Your task to perform on an android device: When is my next appointment? Image 0: 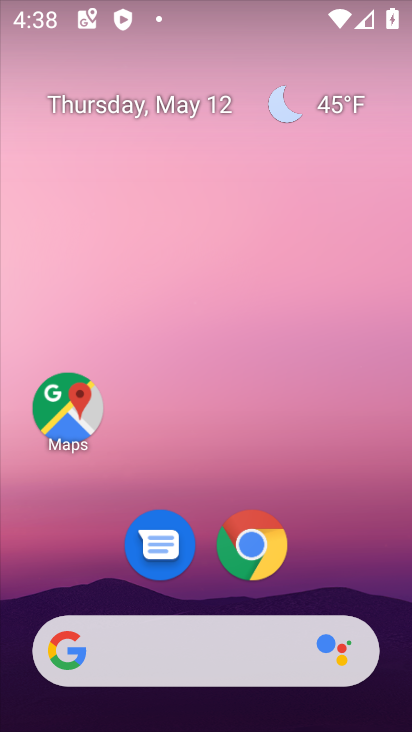
Step 0: drag from (333, 489) to (337, 38)
Your task to perform on an android device: When is my next appointment? Image 1: 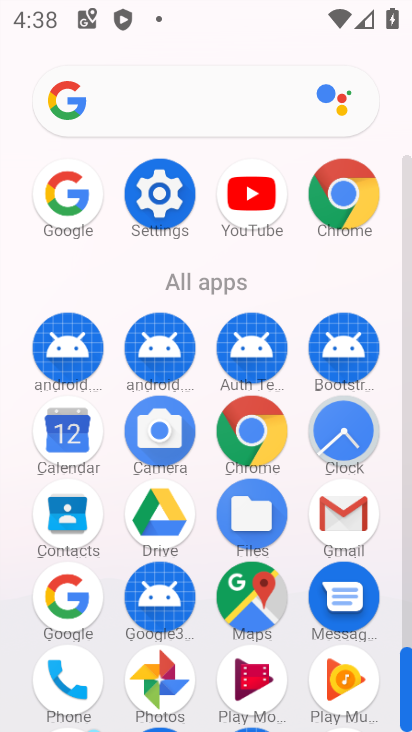
Step 1: click (59, 435)
Your task to perform on an android device: When is my next appointment? Image 2: 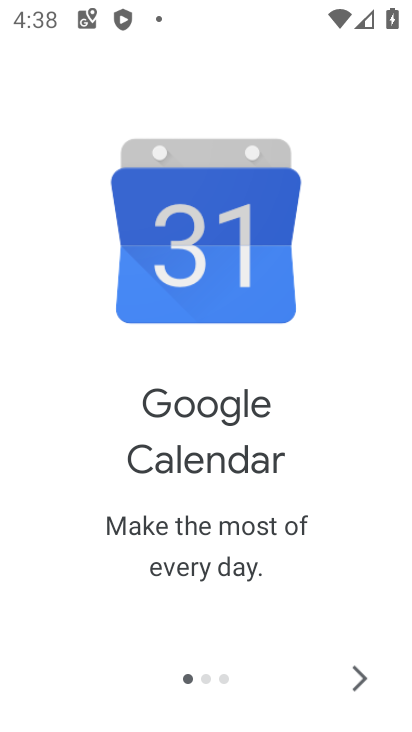
Step 2: click (359, 668)
Your task to perform on an android device: When is my next appointment? Image 3: 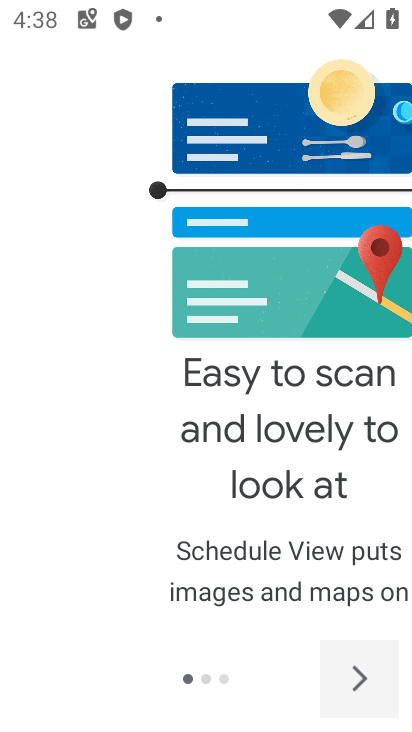
Step 3: click (358, 667)
Your task to perform on an android device: When is my next appointment? Image 4: 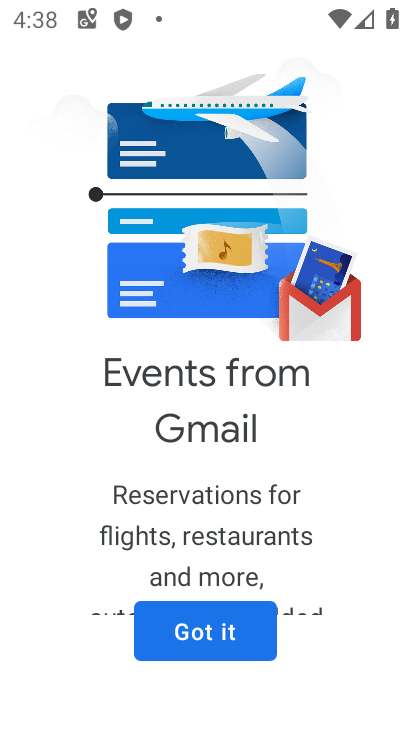
Step 4: click (357, 666)
Your task to perform on an android device: When is my next appointment? Image 5: 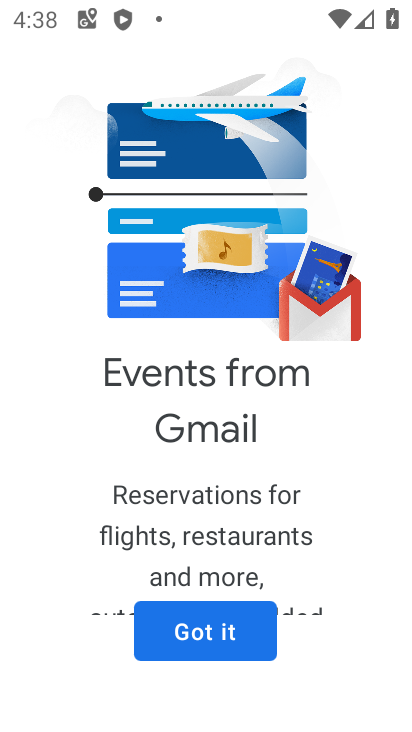
Step 5: click (223, 636)
Your task to perform on an android device: When is my next appointment? Image 6: 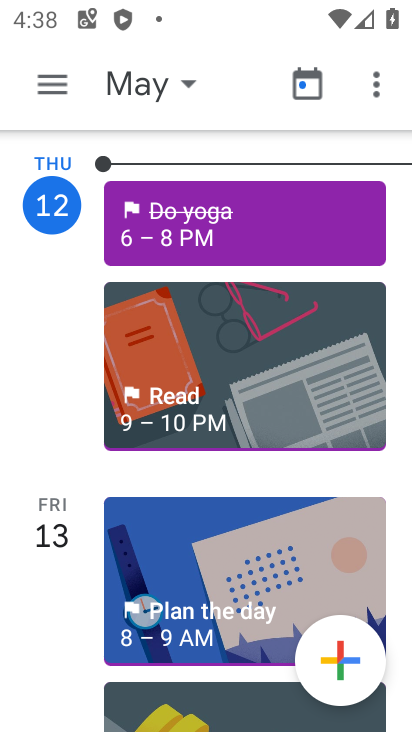
Step 6: task complete